Your task to perform on an android device: change text size in settings app Image 0: 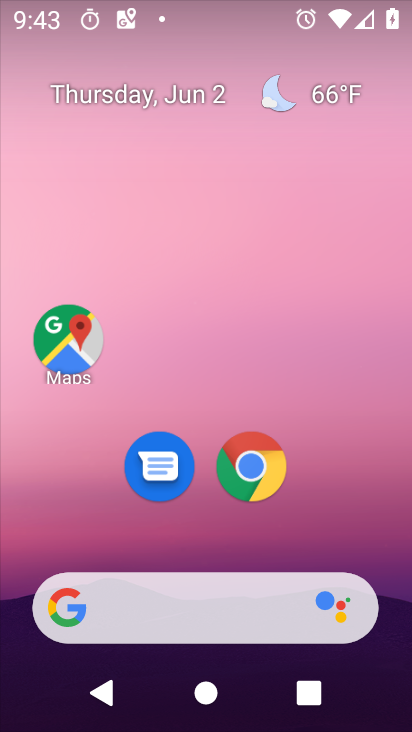
Step 0: drag from (85, 535) to (243, 154)
Your task to perform on an android device: change text size in settings app Image 1: 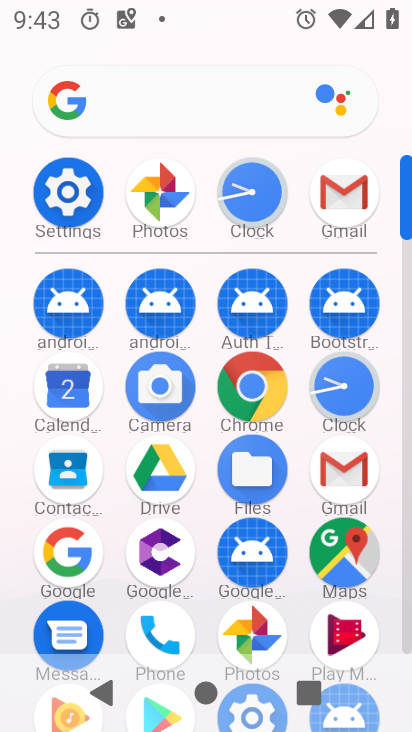
Step 1: click (88, 183)
Your task to perform on an android device: change text size in settings app Image 2: 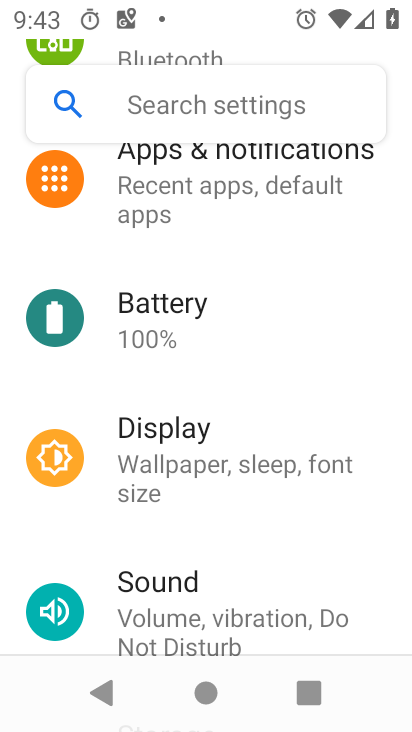
Step 2: click (128, 477)
Your task to perform on an android device: change text size in settings app Image 3: 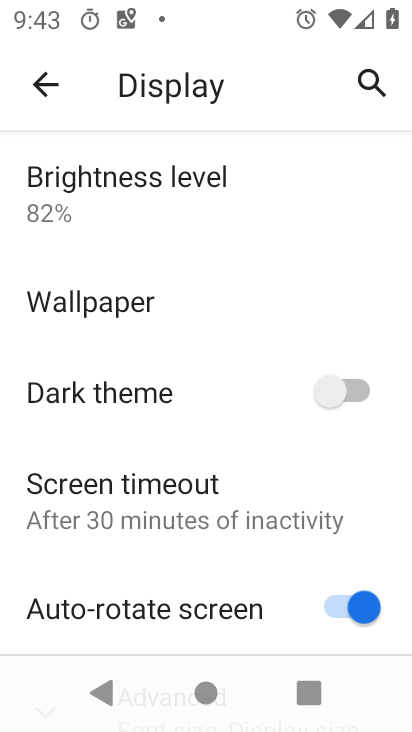
Step 3: drag from (11, 475) to (251, 85)
Your task to perform on an android device: change text size in settings app Image 4: 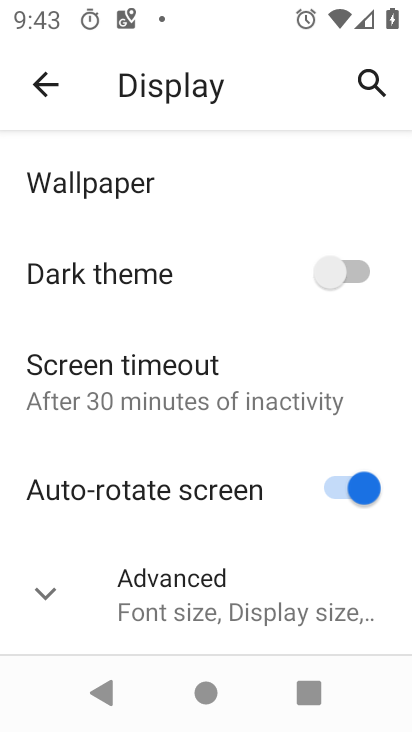
Step 4: click (126, 604)
Your task to perform on an android device: change text size in settings app Image 5: 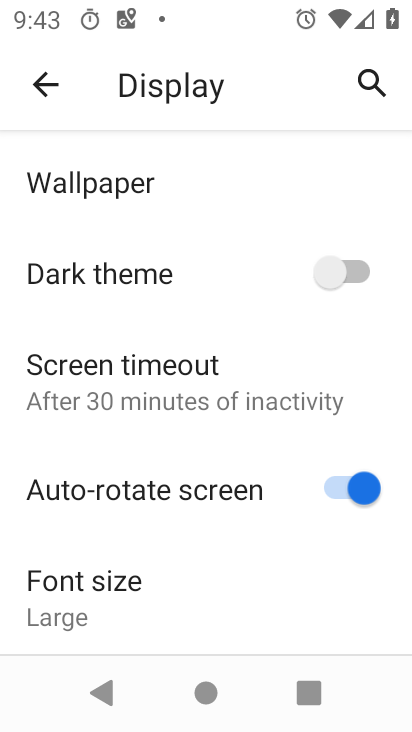
Step 5: click (108, 606)
Your task to perform on an android device: change text size in settings app Image 6: 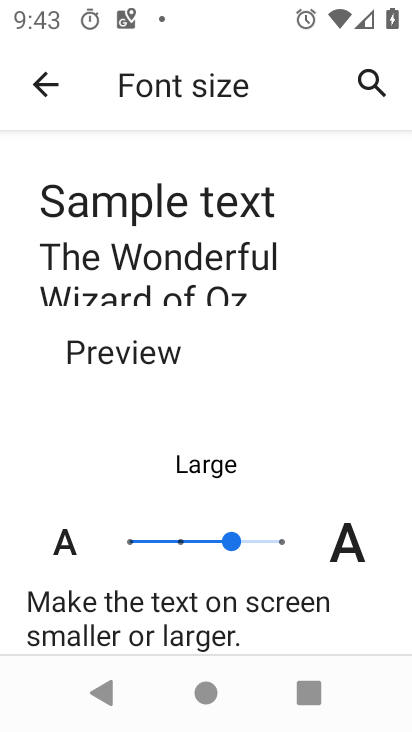
Step 6: task complete